Your task to perform on an android device: toggle pop-ups in chrome Image 0: 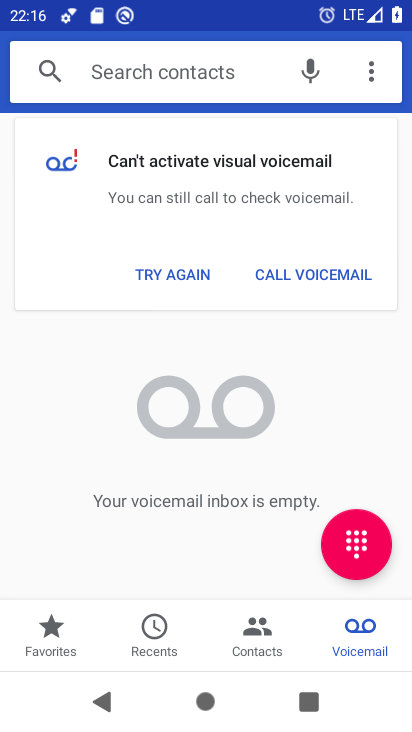
Step 0: press home button
Your task to perform on an android device: toggle pop-ups in chrome Image 1: 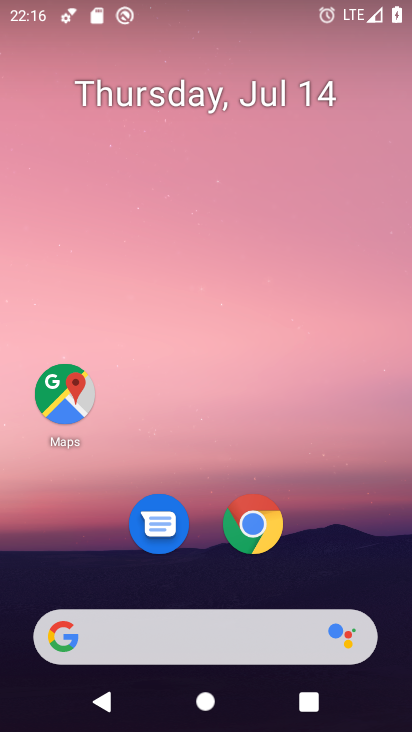
Step 1: click (272, 521)
Your task to perform on an android device: toggle pop-ups in chrome Image 2: 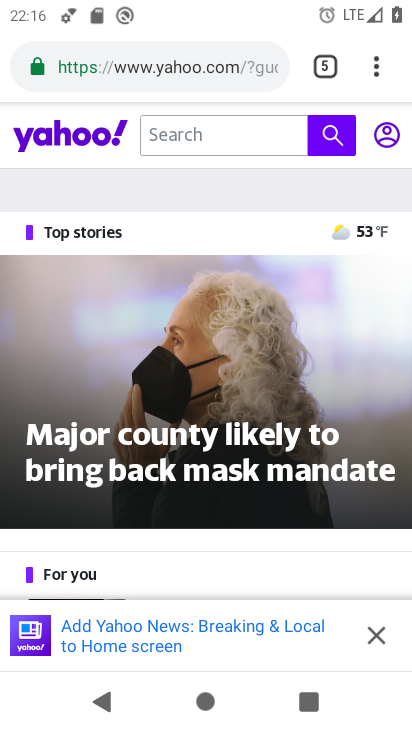
Step 2: click (376, 59)
Your task to perform on an android device: toggle pop-ups in chrome Image 3: 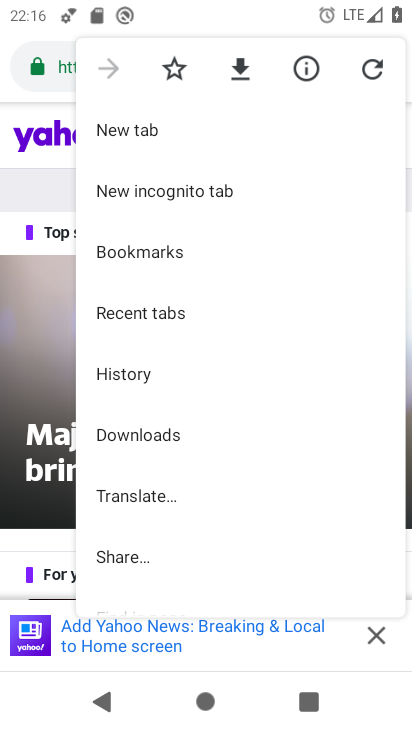
Step 3: drag from (250, 446) to (261, 113)
Your task to perform on an android device: toggle pop-ups in chrome Image 4: 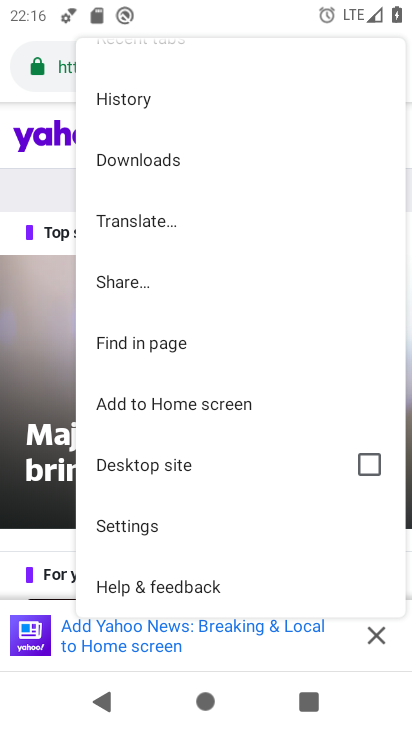
Step 4: click (153, 521)
Your task to perform on an android device: toggle pop-ups in chrome Image 5: 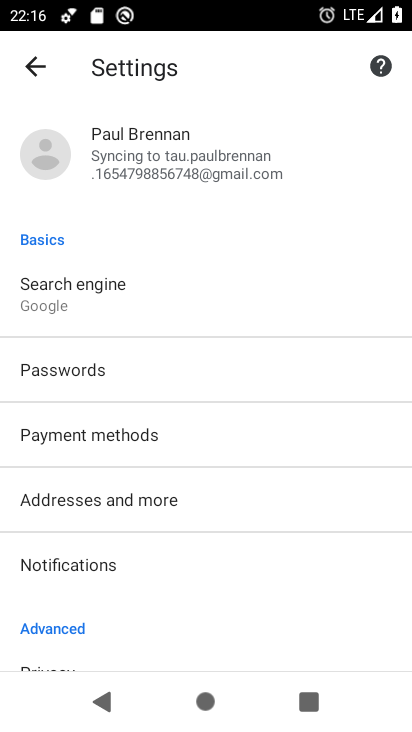
Step 5: drag from (213, 576) to (193, 257)
Your task to perform on an android device: toggle pop-ups in chrome Image 6: 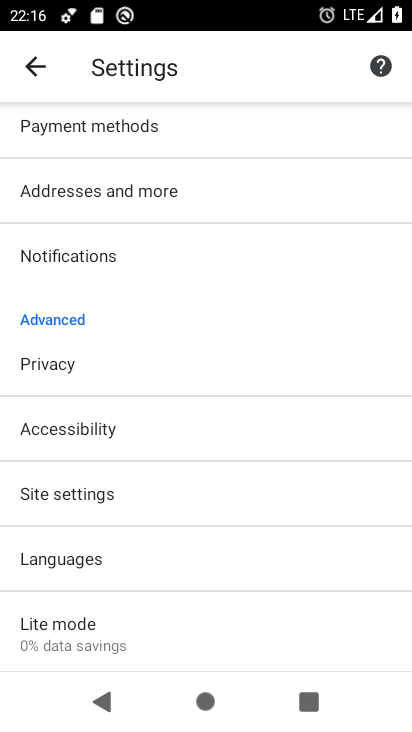
Step 6: click (89, 488)
Your task to perform on an android device: toggle pop-ups in chrome Image 7: 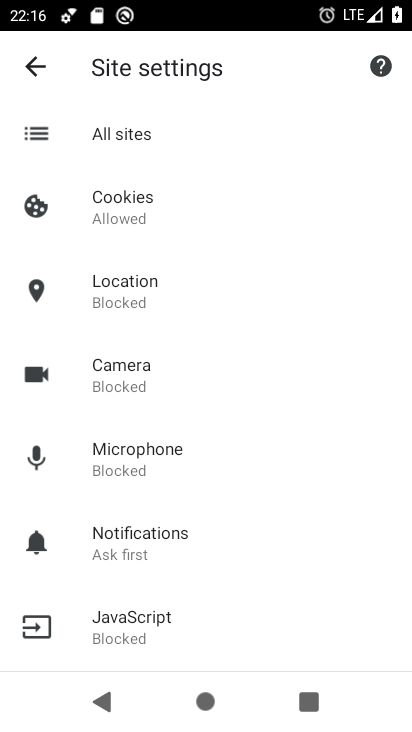
Step 7: drag from (242, 474) to (233, 200)
Your task to perform on an android device: toggle pop-ups in chrome Image 8: 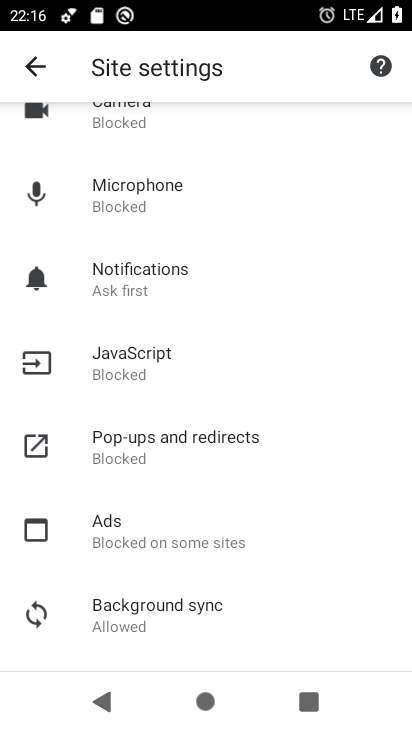
Step 8: click (182, 435)
Your task to perform on an android device: toggle pop-ups in chrome Image 9: 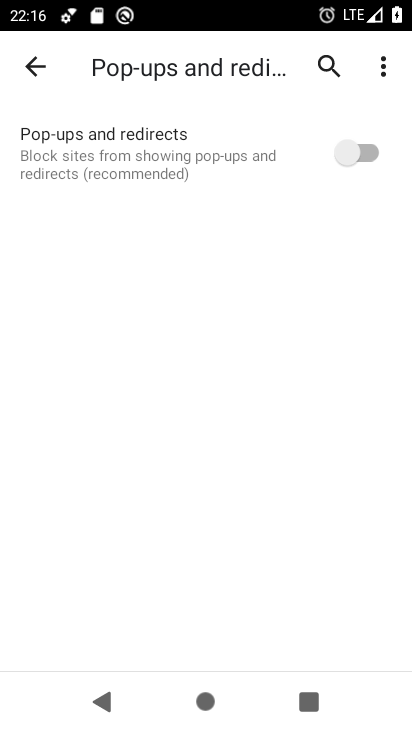
Step 9: click (356, 150)
Your task to perform on an android device: toggle pop-ups in chrome Image 10: 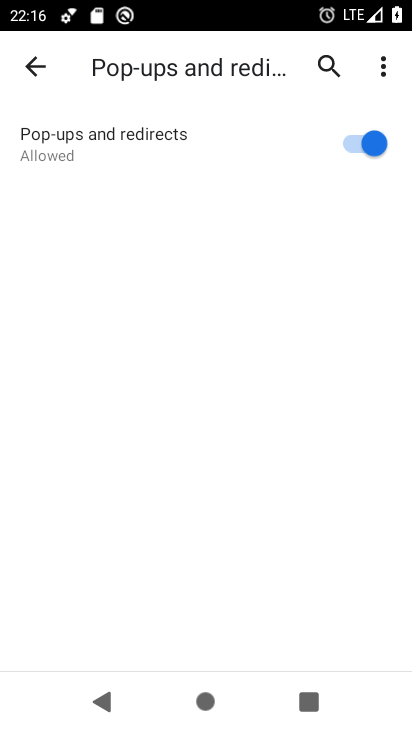
Step 10: task complete